Your task to perform on an android device: see tabs open on other devices in the chrome app Image 0: 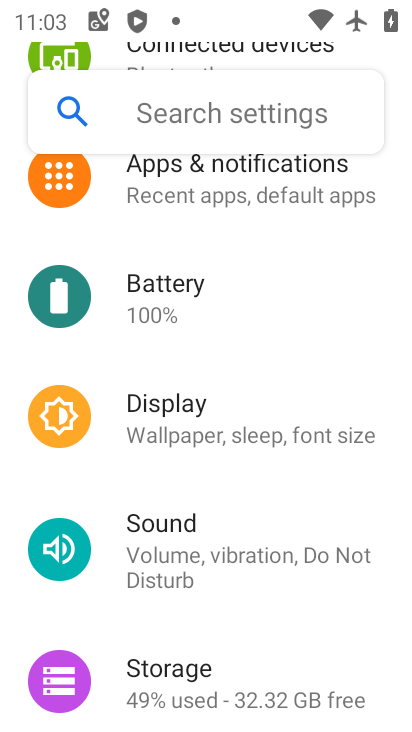
Step 0: press home button
Your task to perform on an android device: see tabs open on other devices in the chrome app Image 1: 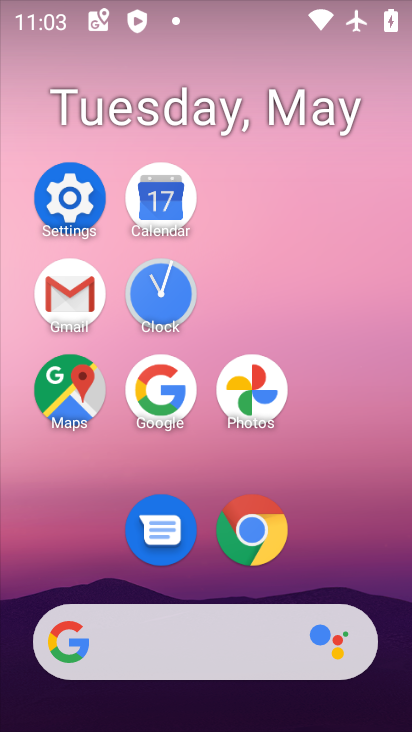
Step 1: click (257, 520)
Your task to perform on an android device: see tabs open on other devices in the chrome app Image 2: 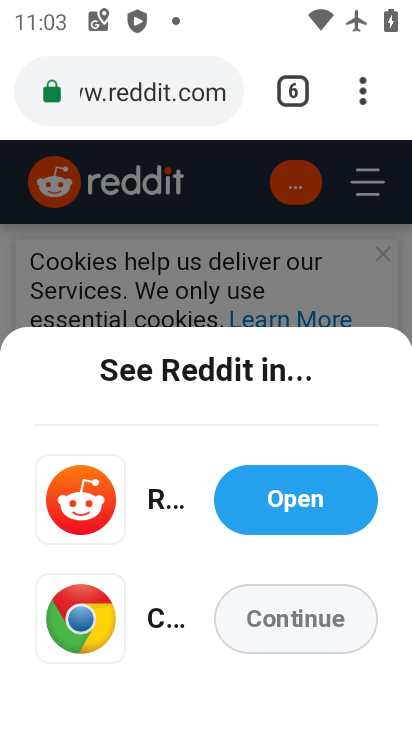
Step 2: click (363, 95)
Your task to perform on an android device: see tabs open on other devices in the chrome app Image 3: 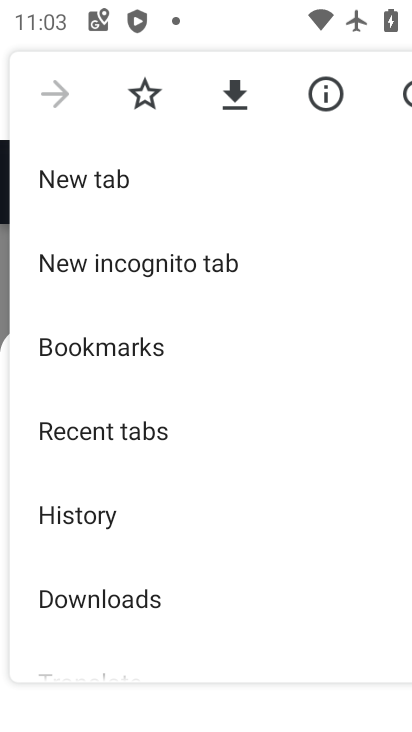
Step 3: click (136, 420)
Your task to perform on an android device: see tabs open on other devices in the chrome app Image 4: 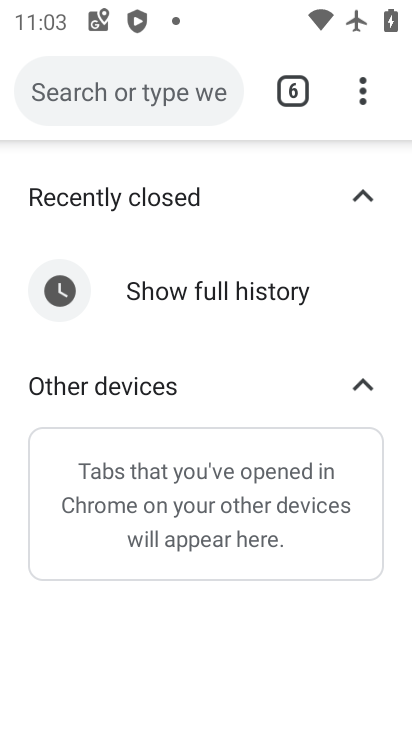
Step 4: click (226, 277)
Your task to perform on an android device: see tabs open on other devices in the chrome app Image 5: 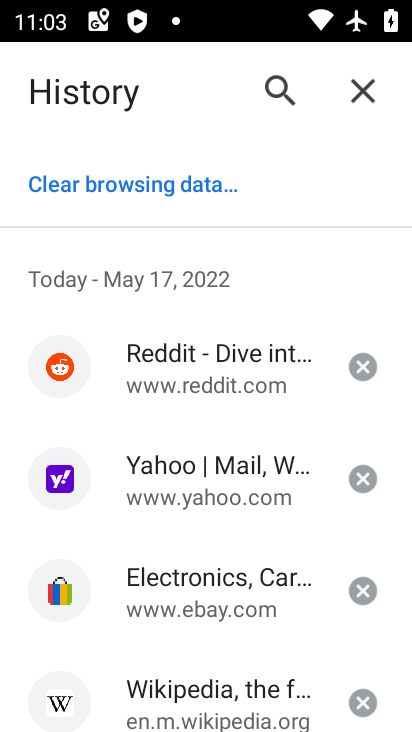
Step 5: task complete